Your task to perform on an android device: Go to location settings Image 0: 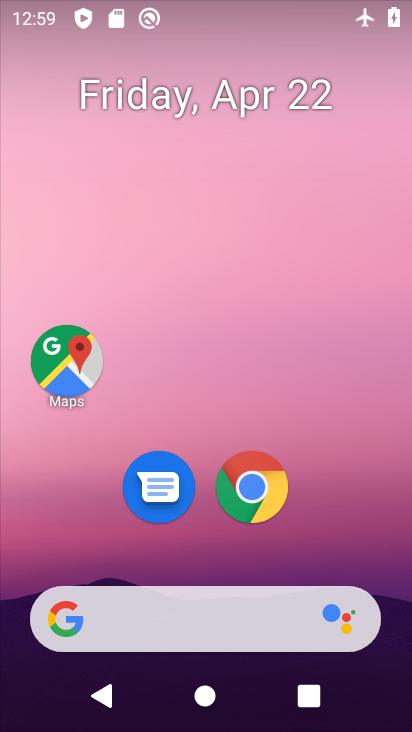
Step 0: drag from (210, 567) to (198, 28)
Your task to perform on an android device: Go to location settings Image 1: 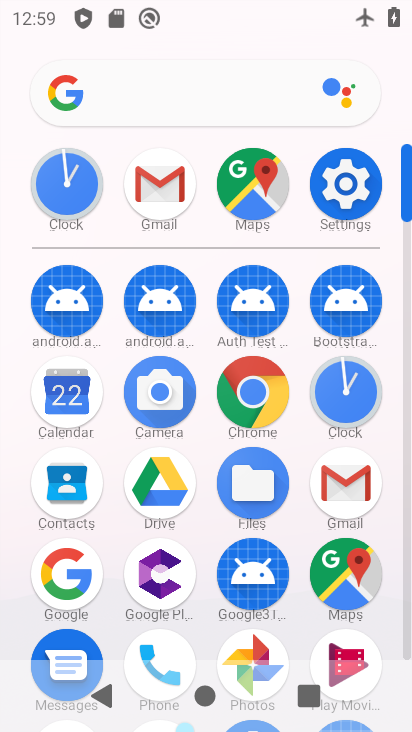
Step 1: click (335, 169)
Your task to perform on an android device: Go to location settings Image 2: 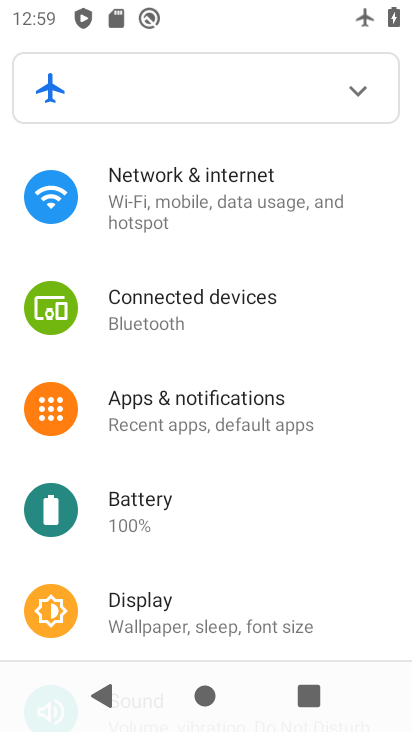
Step 2: drag from (209, 582) to (203, 263)
Your task to perform on an android device: Go to location settings Image 3: 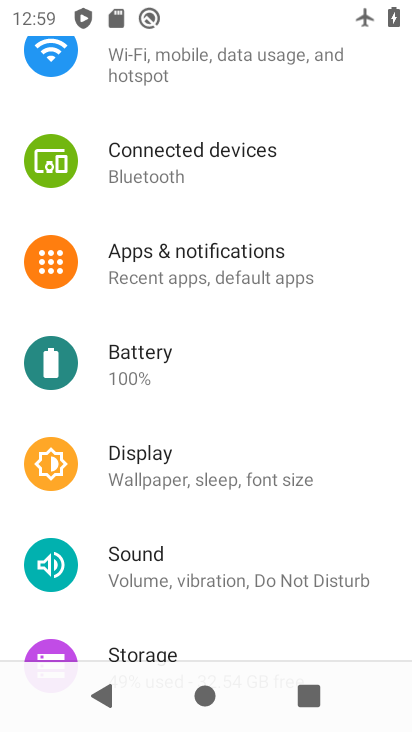
Step 3: drag from (210, 562) to (220, 191)
Your task to perform on an android device: Go to location settings Image 4: 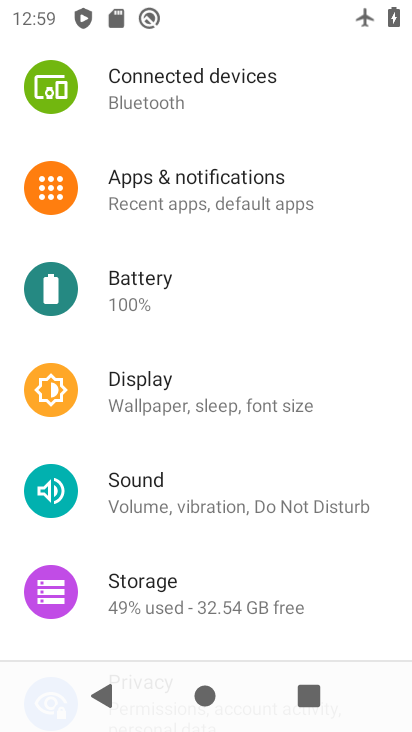
Step 4: drag from (228, 539) to (253, 220)
Your task to perform on an android device: Go to location settings Image 5: 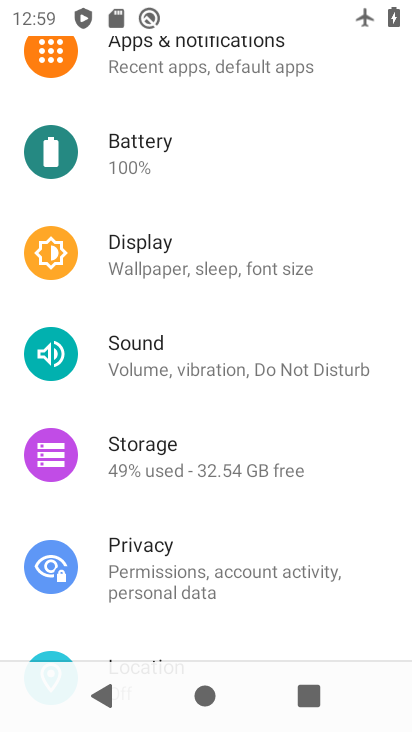
Step 5: drag from (230, 534) to (245, 276)
Your task to perform on an android device: Go to location settings Image 6: 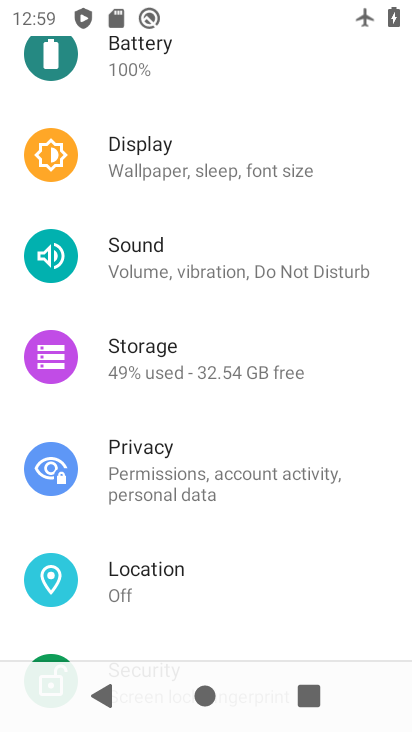
Step 6: click (164, 562)
Your task to perform on an android device: Go to location settings Image 7: 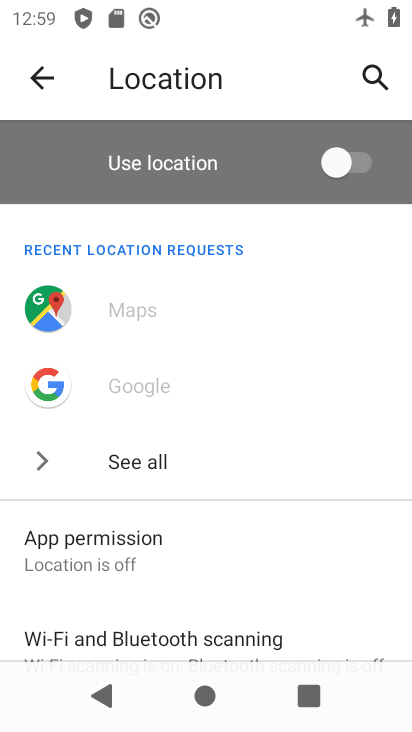
Step 7: drag from (230, 634) to (260, 358)
Your task to perform on an android device: Go to location settings Image 8: 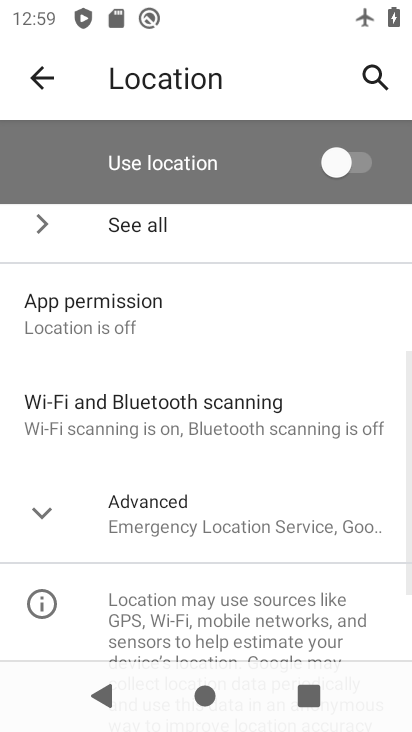
Step 8: click (223, 508)
Your task to perform on an android device: Go to location settings Image 9: 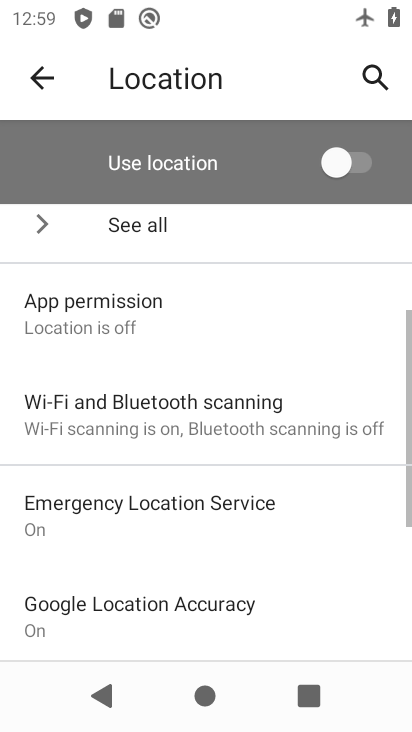
Step 9: task complete